Your task to perform on an android device: Open battery settings Image 0: 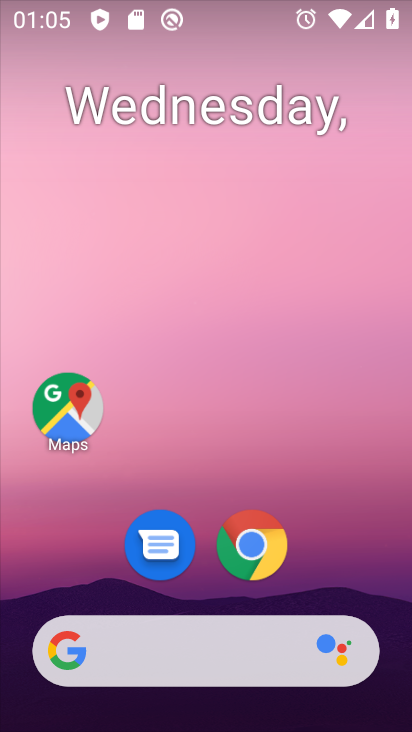
Step 0: drag from (327, 422) to (338, 127)
Your task to perform on an android device: Open battery settings Image 1: 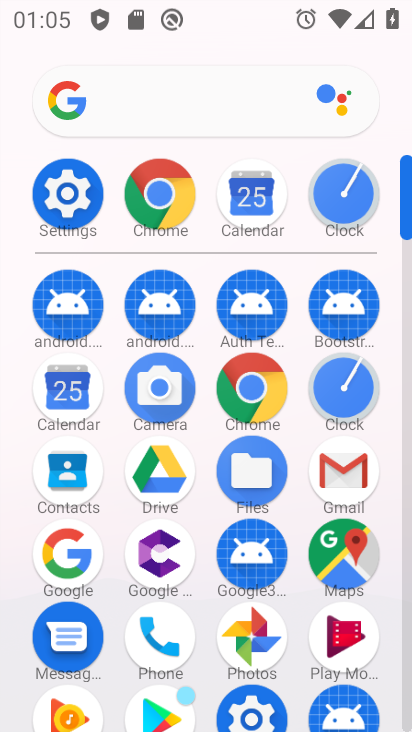
Step 1: click (71, 200)
Your task to perform on an android device: Open battery settings Image 2: 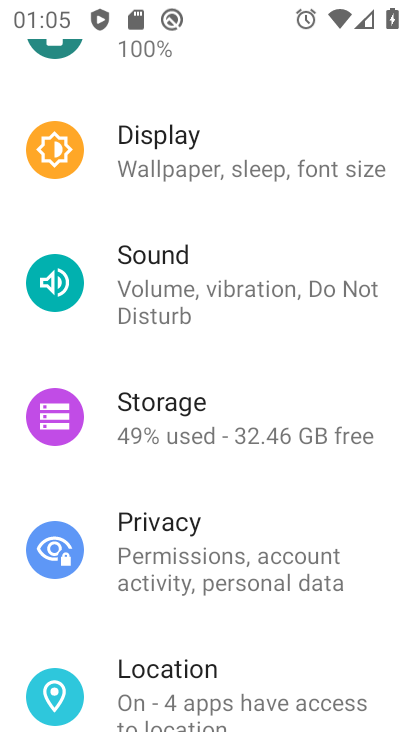
Step 2: drag from (235, 224) to (265, 568)
Your task to perform on an android device: Open battery settings Image 3: 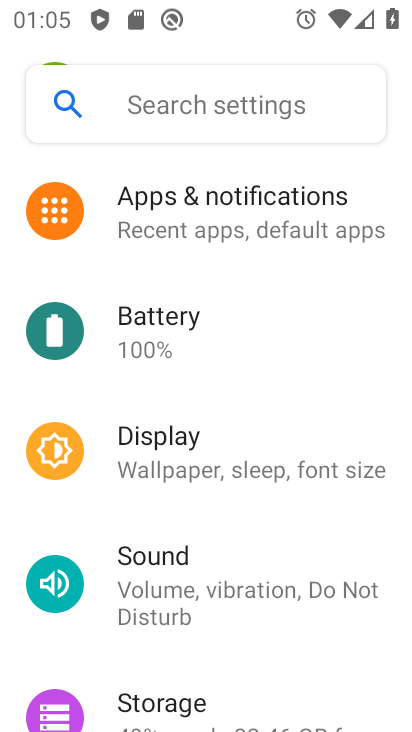
Step 3: click (206, 311)
Your task to perform on an android device: Open battery settings Image 4: 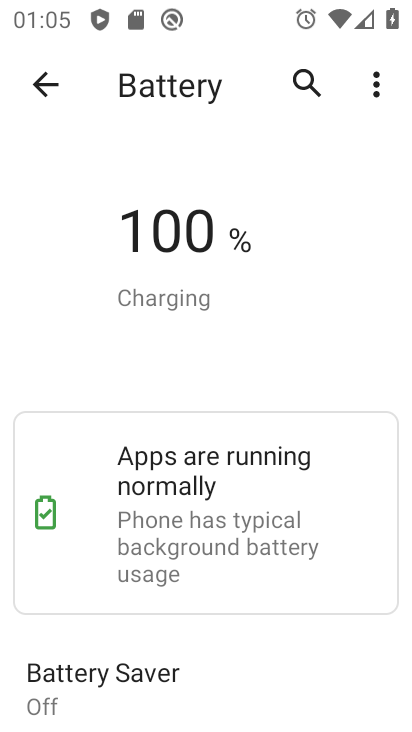
Step 4: task complete